Your task to perform on an android device: Open calendar and show me the fourth week of next month Image 0: 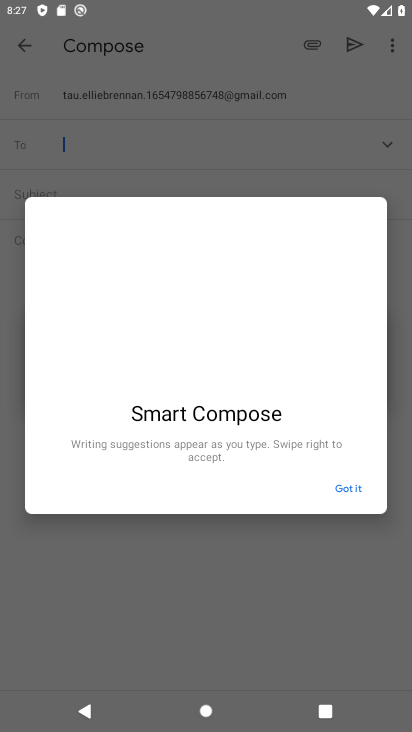
Step 0: press home button
Your task to perform on an android device: Open calendar and show me the fourth week of next month Image 1: 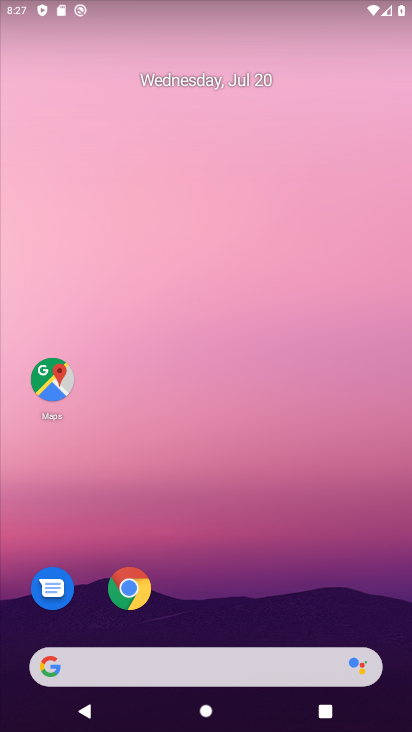
Step 1: drag from (226, 630) to (93, 81)
Your task to perform on an android device: Open calendar and show me the fourth week of next month Image 2: 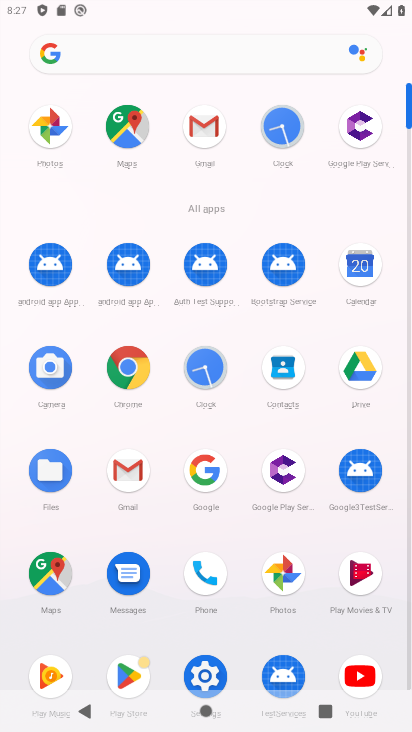
Step 2: click (352, 275)
Your task to perform on an android device: Open calendar and show me the fourth week of next month Image 3: 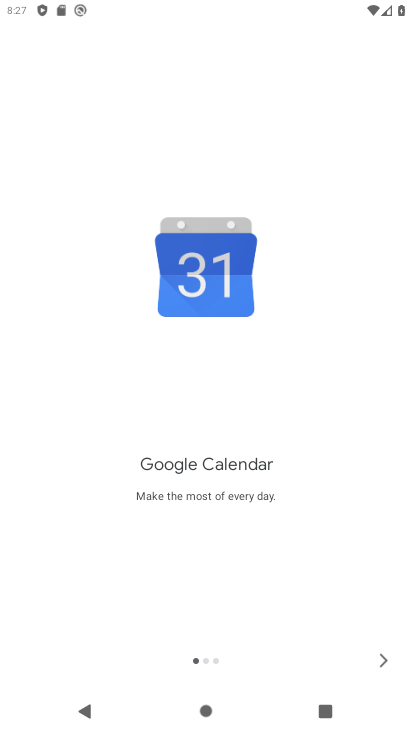
Step 3: click (372, 666)
Your task to perform on an android device: Open calendar and show me the fourth week of next month Image 4: 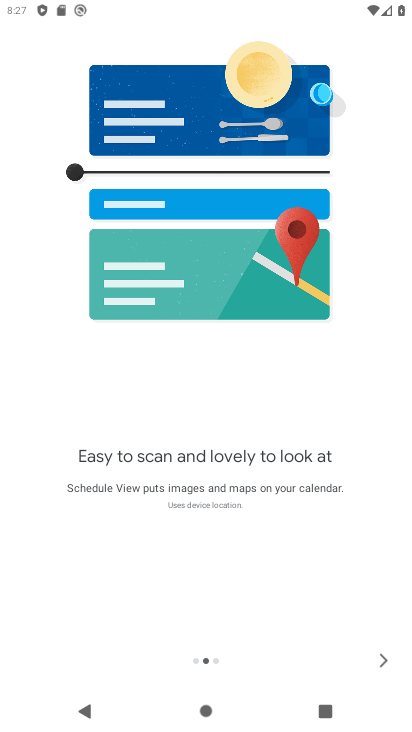
Step 4: click (372, 666)
Your task to perform on an android device: Open calendar and show me the fourth week of next month Image 5: 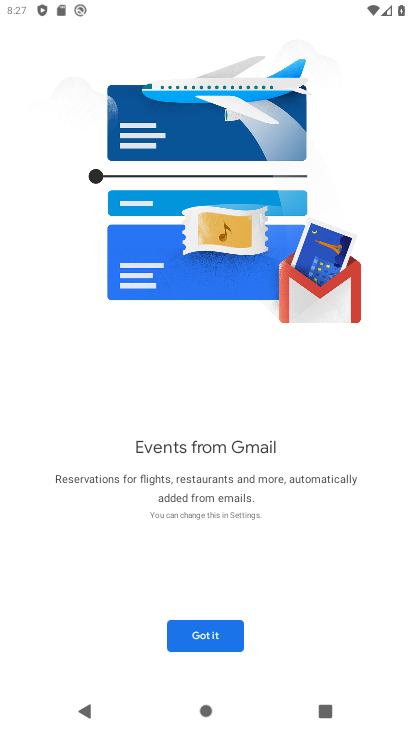
Step 5: click (195, 630)
Your task to perform on an android device: Open calendar and show me the fourth week of next month Image 6: 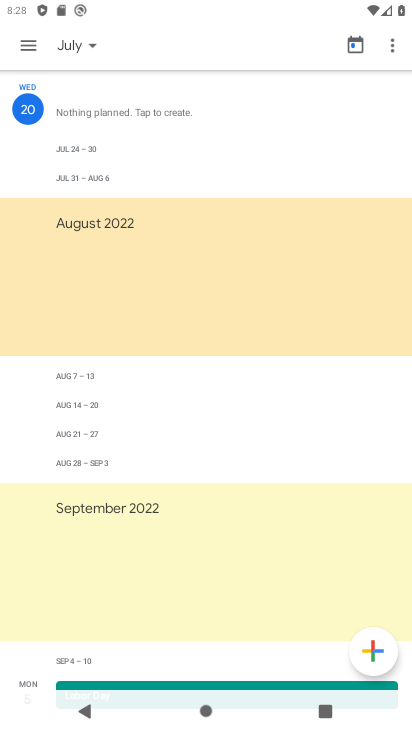
Step 6: click (366, 53)
Your task to perform on an android device: Open calendar and show me the fourth week of next month Image 7: 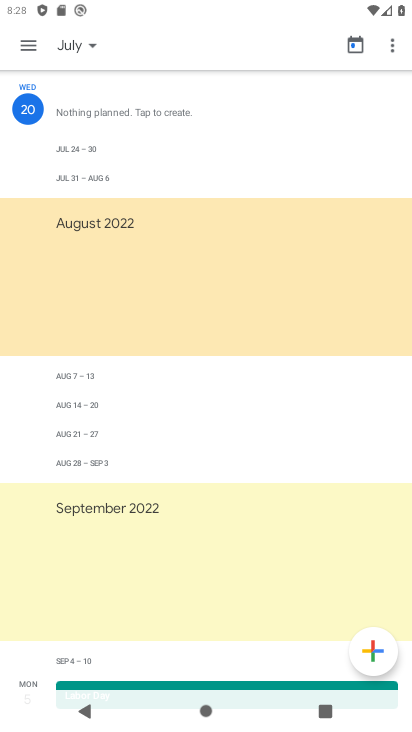
Step 7: click (352, 43)
Your task to perform on an android device: Open calendar and show me the fourth week of next month Image 8: 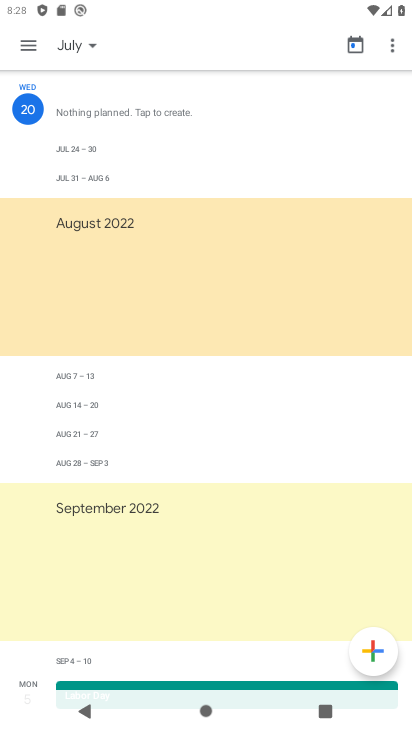
Step 8: click (35, 46)
Your task to perform on an android device: Open calendar and show me the fourth week of next month Image 9: 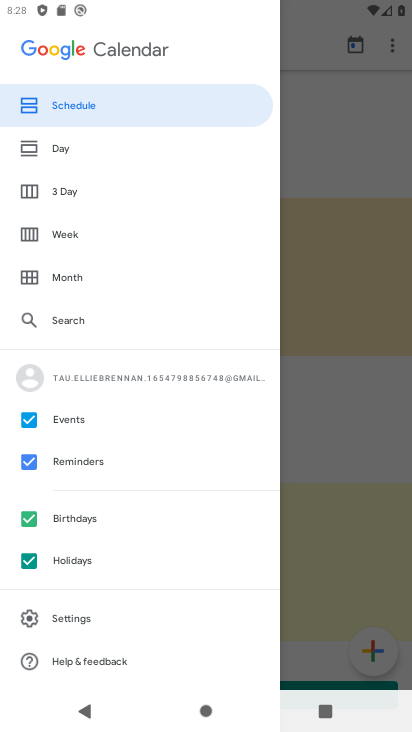
Step 9: click (57, 237)
Your task to perform on an android device: Open calendar and show me the fourth week of next month Image 10: 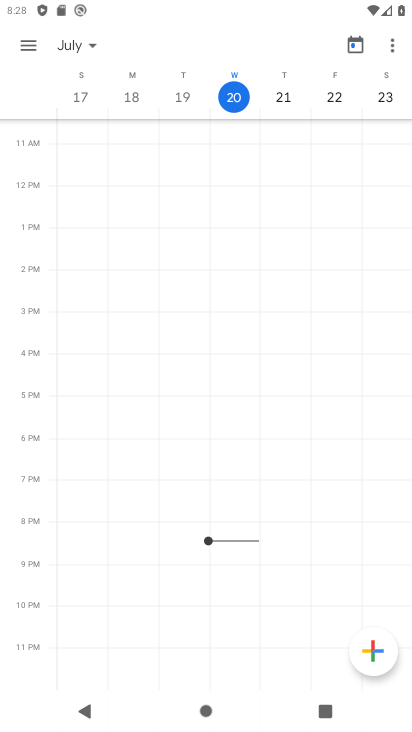
Step 10: task complete